Your task to perform on an android device: find snoozed emails in the gmail app Image 0: 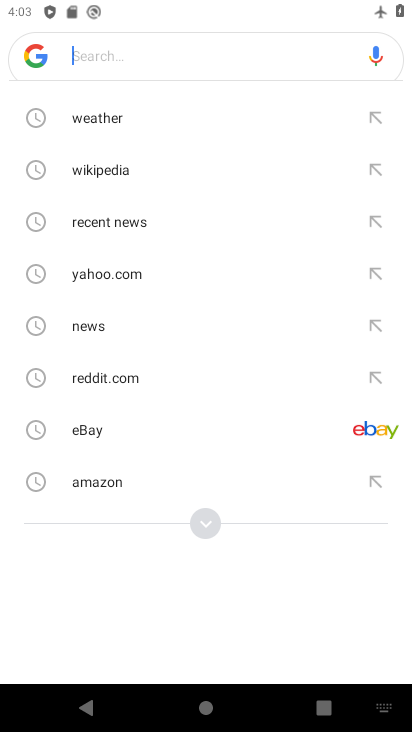
Step 0: press home button
Your task to perform on an android device: find snoozed emails in the gmail app Image 1: 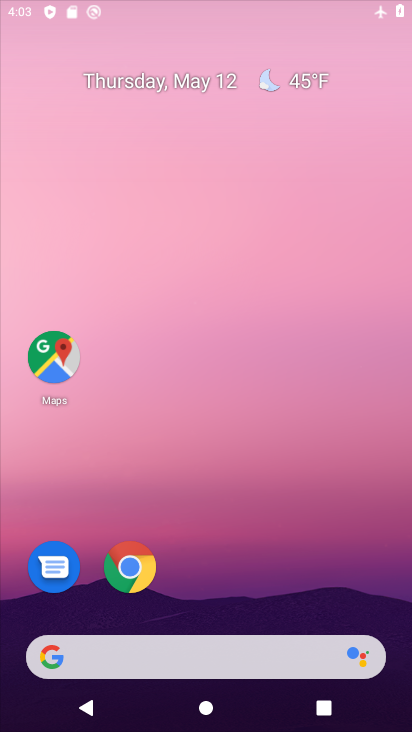
Step 1: drag from (212, 560) to (181, 196)
Your task to perform on an android device: find snoozed emails in the gmail app Image 2: 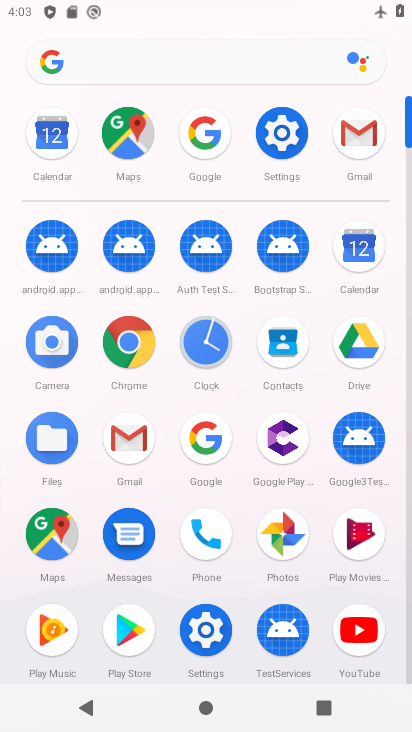
Step 2: click (336, 136)
Your task to perform on an android device: find snoozed emails in the gmail app Image 3: 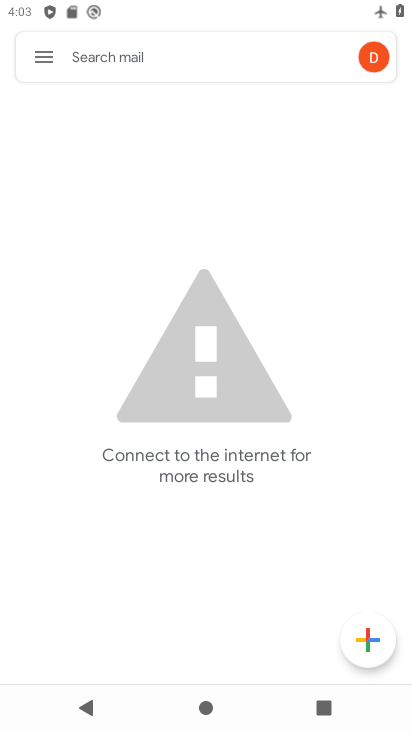
Step 3: click (36, 55)
Your task to perform on an android device: find snoozed emails in the gmail app Image 4: 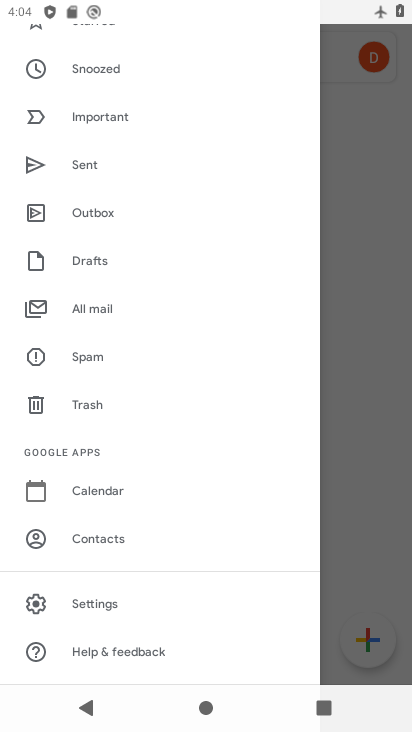
Step 4: click (111, 65)
Your task to perform on an android device: find snoozed emails in the gmail app Image 5: 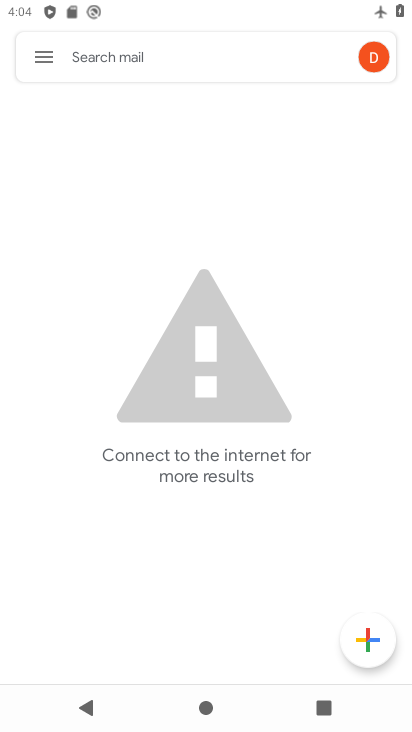
Step 5: task complete